Your task to perform on an android device: change text size in settings app Image 0: 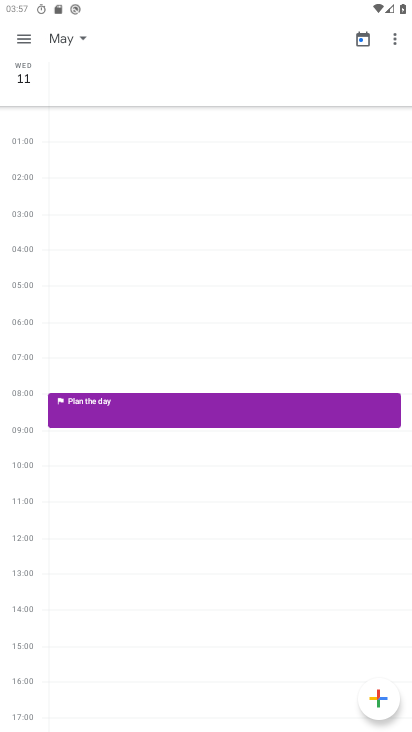
Step 0: press home button
Your task to perform on an android device: change text size in settings app Image 1: 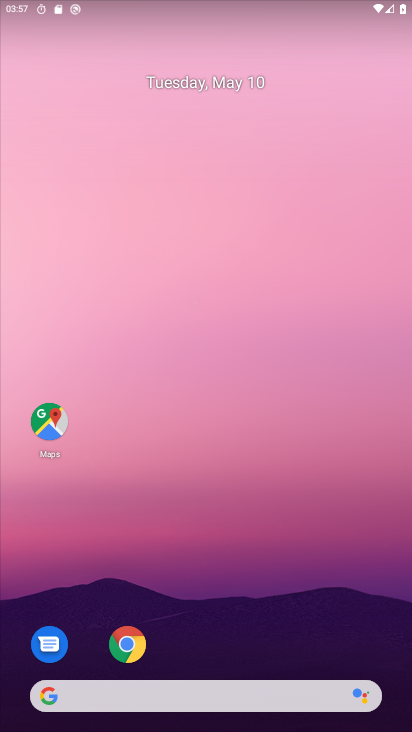
Step 1: drag from (208, 667) to (270, 82)
Your task to perform on an android device: change text size in settings app Image 2: 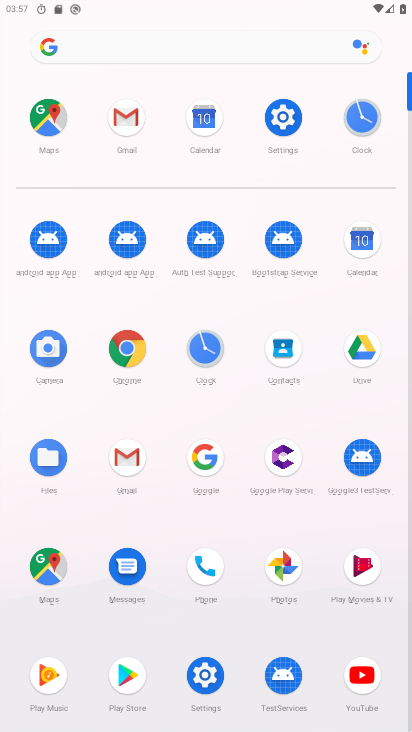
Step 2: click (202, 672)
Your task to perform on an android device: change text size in settings app Image 3: 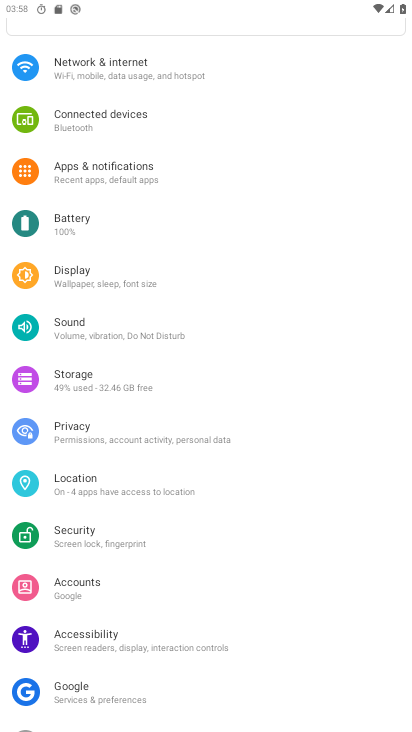
Step 3: click (91, 273)
Your task to perform on an android device: change text size in settings app Image 4: 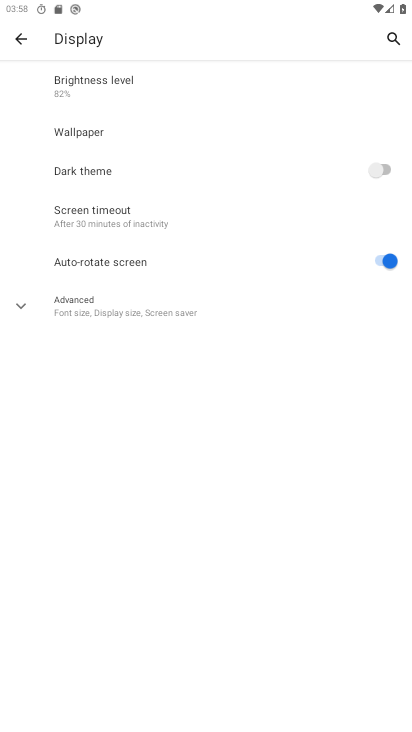
Step 4: click (22, 303)
Your task to perform on an android device: change text size in settings app Image 5: 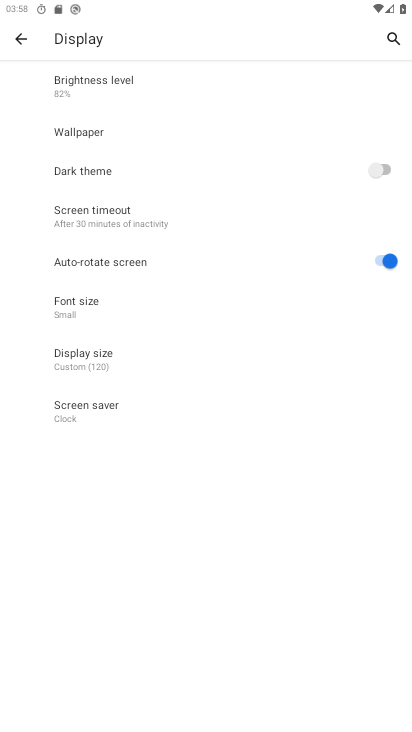
Step 5: click (99, 310)
Your task to perform on an android device: change text size in settings app Image 6: 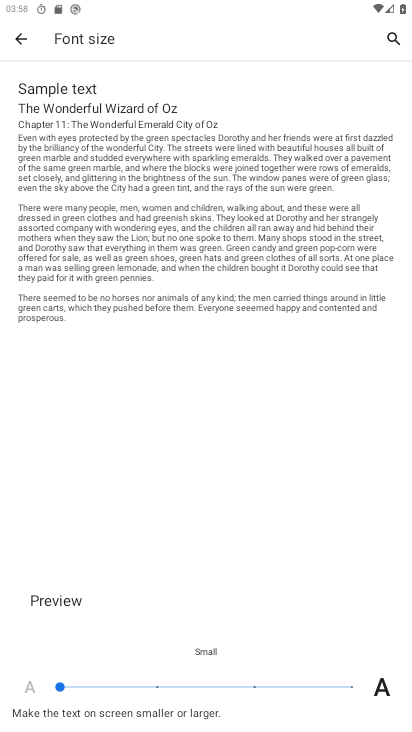
Step 6: click (150, 685)
Your task to perform on an android device: change text size in settings app Image 7: 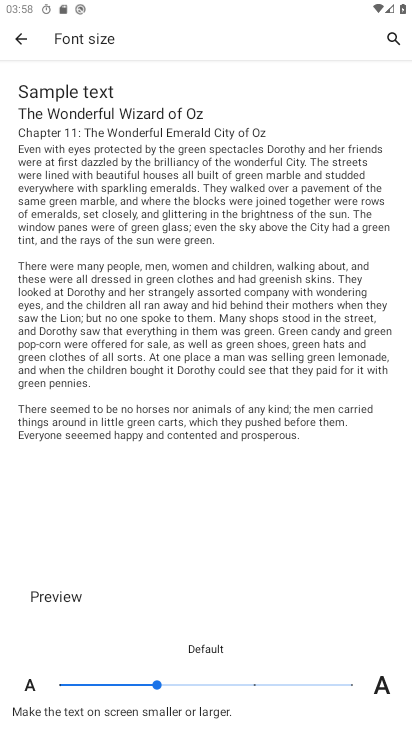
Step 7: task complete